Your task to perform on an android device: see tabs open on other devices in the chrome app Image 0: 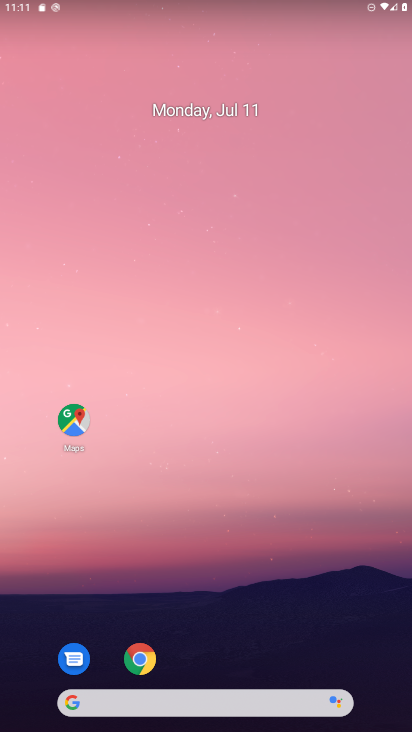
Step 0: drag from (372, 656) to (343, 145)
Your task to perform on an android device: see tabs open on other devices in the chrome app Image 1: 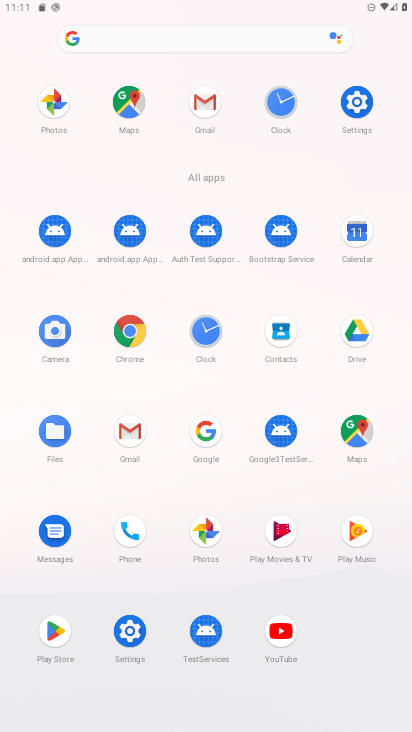
Step 1: click (131, 338)
Your task to perform on an android device: see tabs open on other devices in the chrome app Image 2: 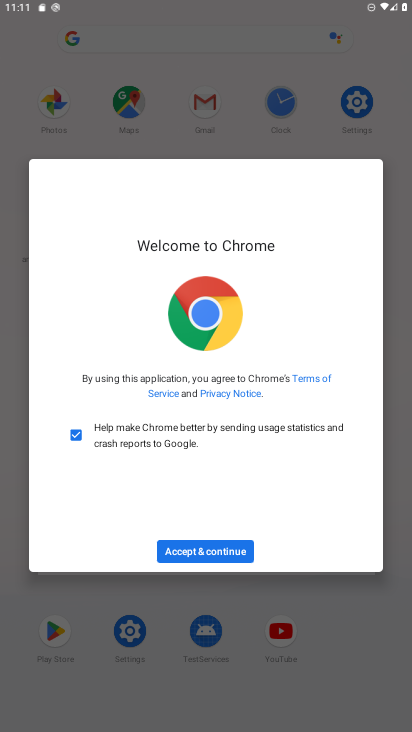
Step 2: click (231, 547)
Your task to perform on an android device: see tabs open on other devices in the chrome app Image 3: 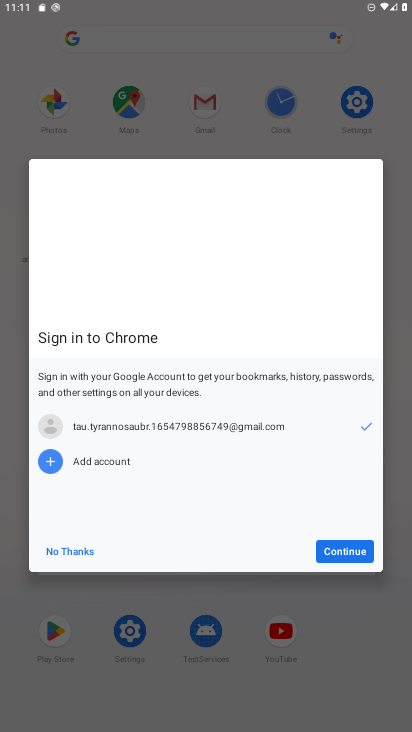
Step 3: click (345, 555)
Your task to perform on an android device: see tabs open on other devices in the chrome app Image 4: 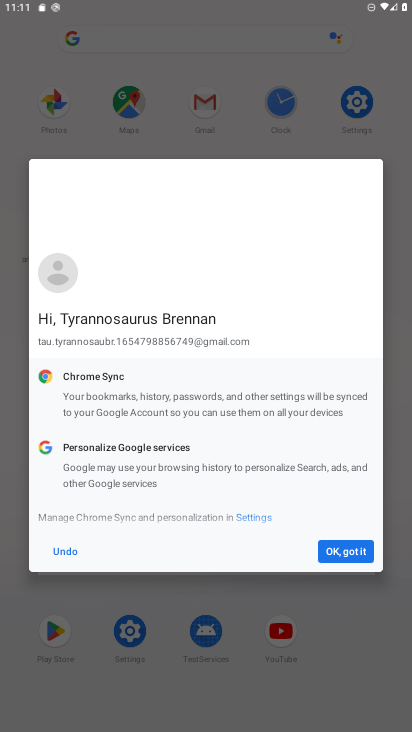
Step 4: click (364, 554)
Your task to perform on an android device: see tabs open on other devices in the chrome app Image 5: 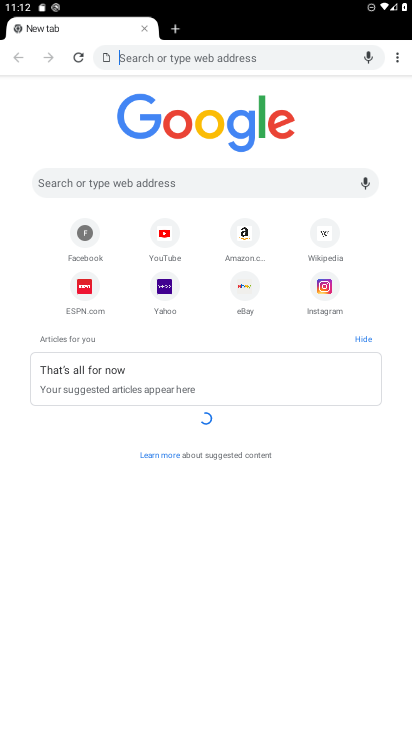
Step 5: click (396, 66)
Your task to perform on an android device: see tabs open on other devices in the chrome app Image 6: 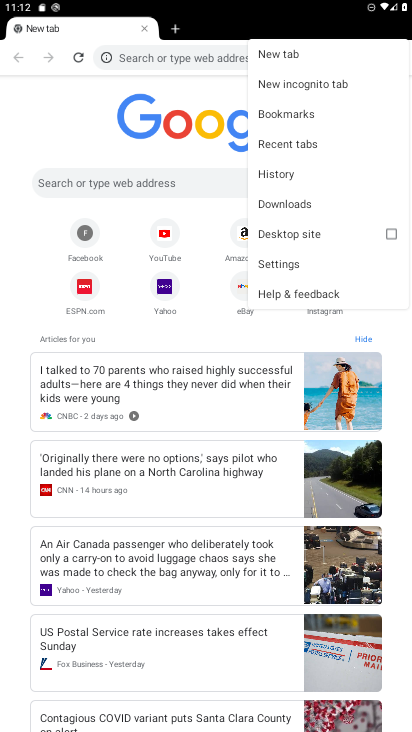
Step 6: click (302, 145)
Your task to perform on an android device: see tabs open on other devices in the chrome app Image 7: 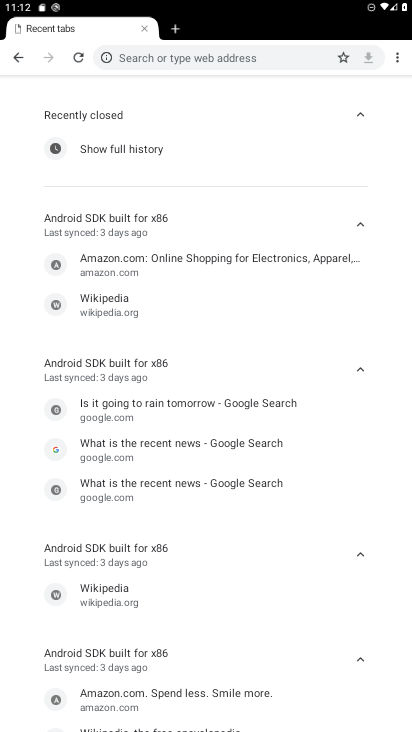
Step 7: task complete